Your task to perform on an android device: Open Chrome and go to settings Image 0: 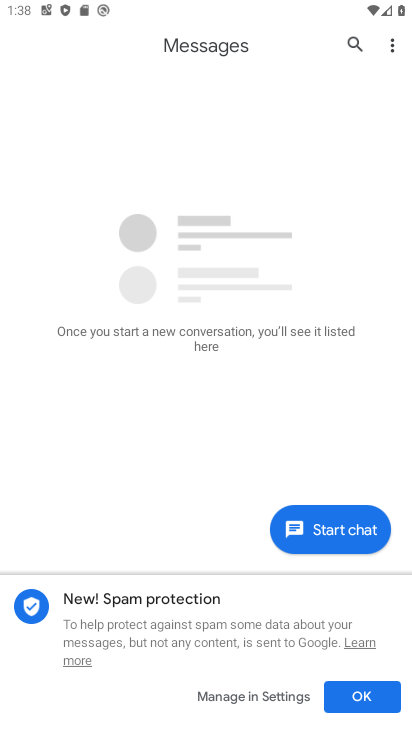
Step 0: press home button
Your task to perform on an android device: Open Chrome and go to settings Image 1: 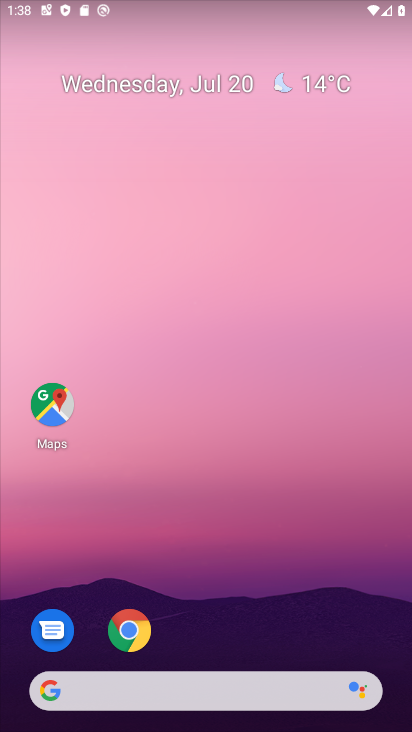
Step 1: click (128, 621)
Your task to perform on an android device: Open Chrome and go to settings Image 2: 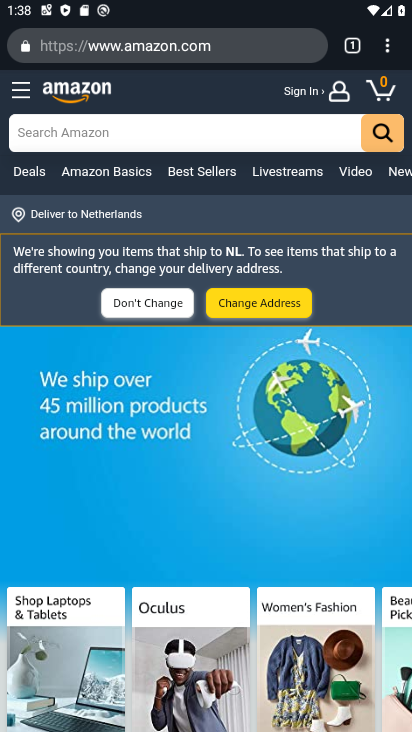
Step 2: click (391, 49)
Your task to perform on an android device: Open Chrome and go to settings Image 3: 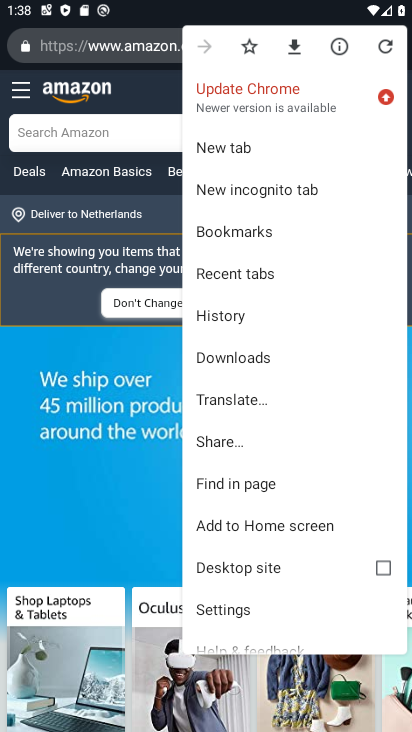
Step 3: click (236, 606)
Your task to perform on an android device: Open Chrome and go to settings Image 4: 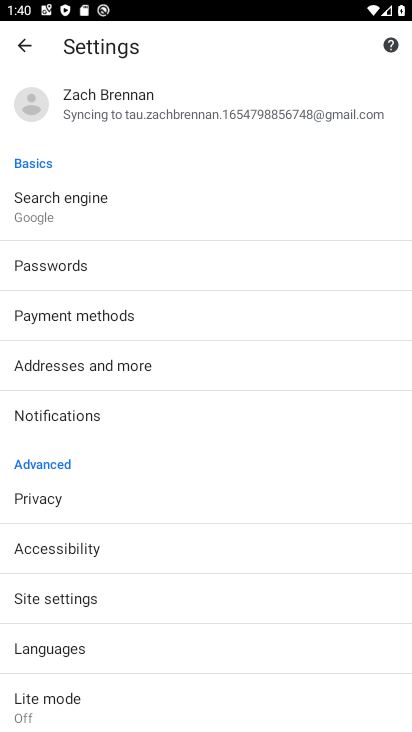
Step 4: task complete